Your task to perform on an android device: Open calendar and show me the first week of next month Image 0: 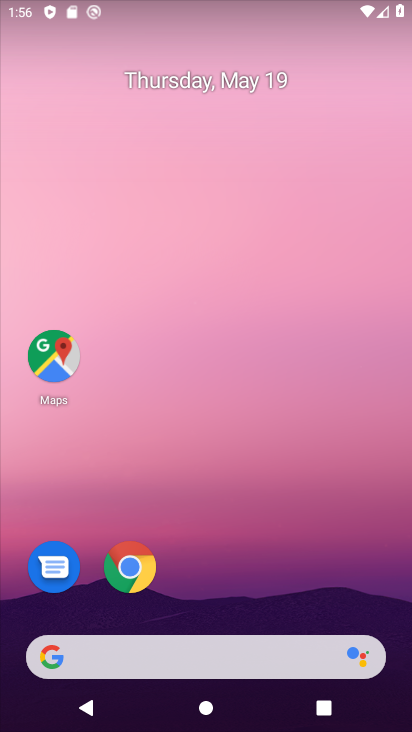
Step 0: drag from (234, 540) to (341, 152)
Your task to perform on an android device: Open calendar and show me the first week of next month Image 1: 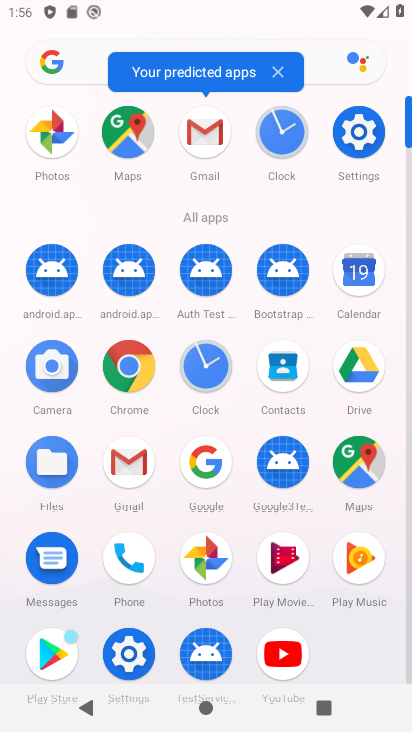
Step 1: click (368, 271)
Your task to perform on an android device: Open calendar and show me the first week of next month Image 2: 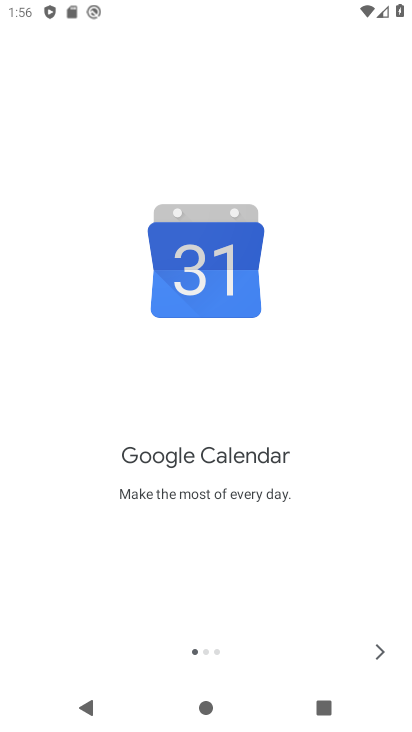
Step 2: click (385, 641)
Your task to perform on an android device: Open calendar and show me the first week of next month Image 3: 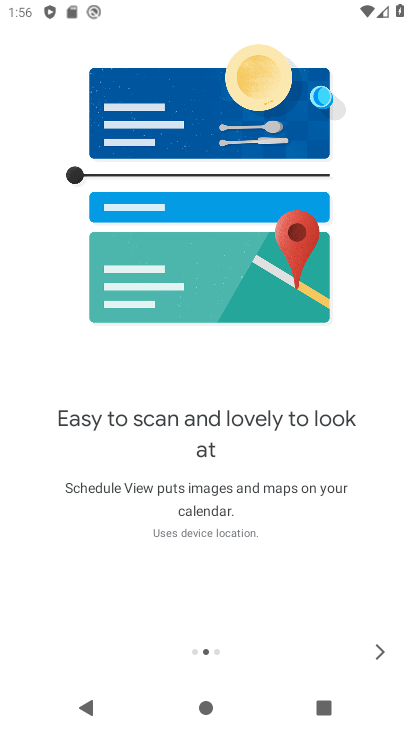
Step 3: click (385, 641)
Your task to perform on an android device: Open calendar and show me the first week of next month Image 4: 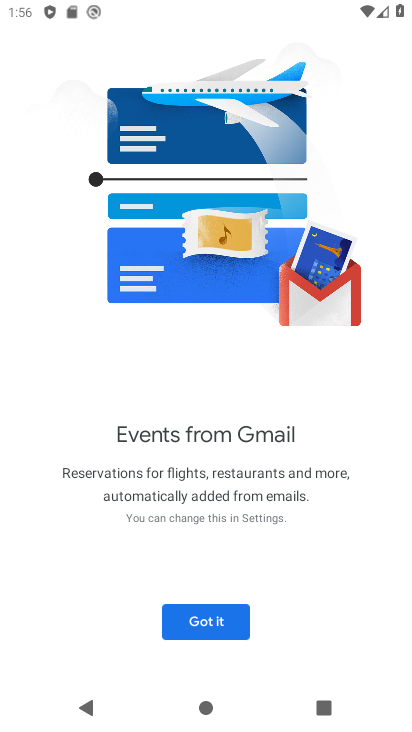
Step 4: click (236, 627)
Your task to perform on an android device: Open calendar and show me the first week of next month Image 5: 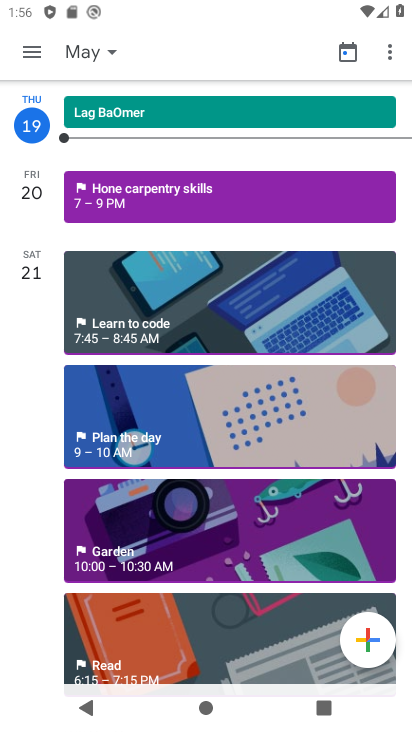
Step 5: click (109, 55)
Your task to perform on an android device: Open calendar and show me the first week of next month Image 6: 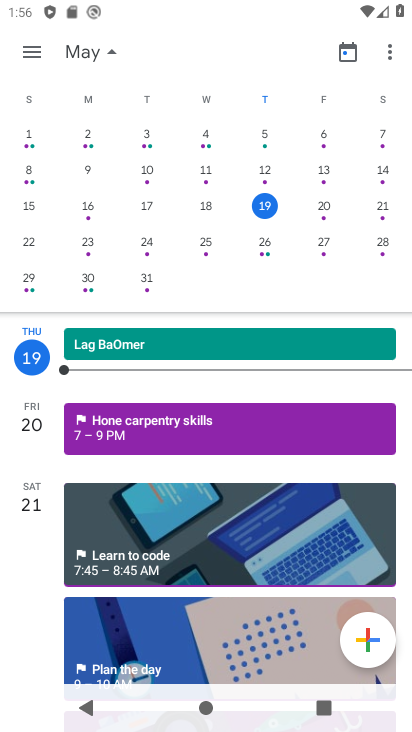
Step 6: click (109, 55)
Your task to perform on an android device: Open calendar and show me the first week of next month Image 7: 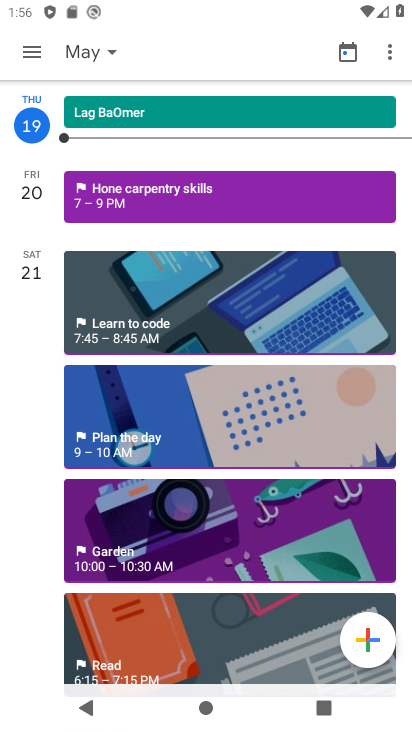
Step 7: click (109, 55)
Your task to perform on an android device: Open calendar and show me the first week of next month Image 8: 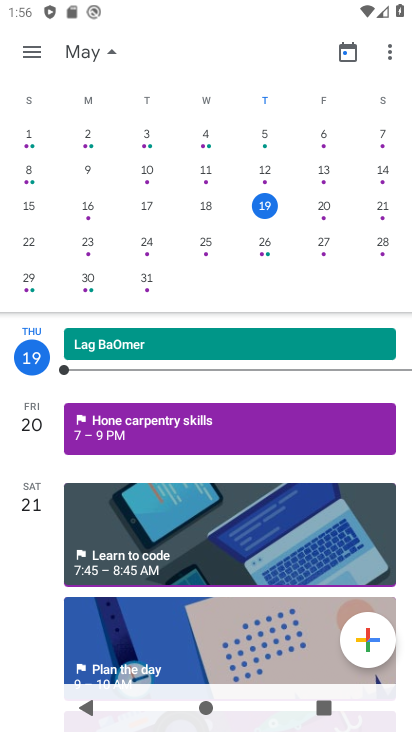
Step 8: drag from (383, 206) to (5, 272)
Your task to perform on an android device: Open calendar and show me the first week of next month Image 9: 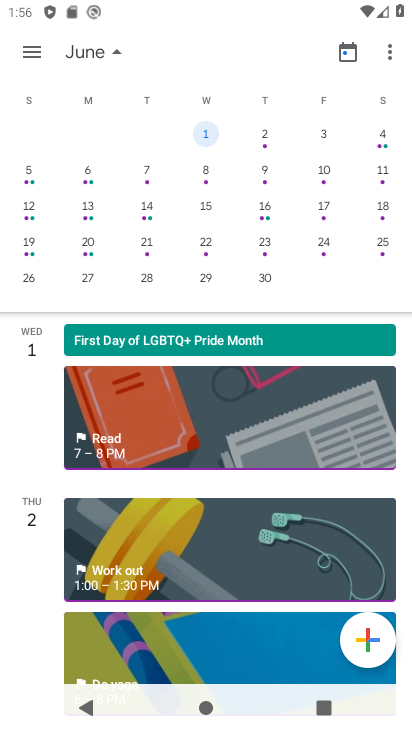
Step 9: click (211, 125)
Your task to perform on an android device: Open calendar and show me the first week of next month Image 10: 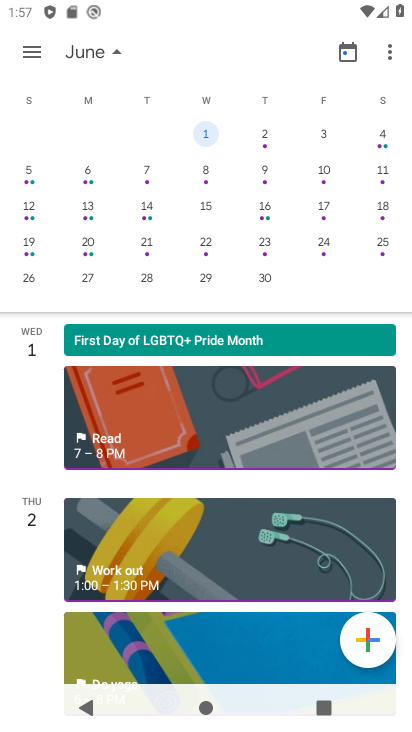
Step 10: click (205, 124)
Your task to perform on an android device: Open calendar and show me the first week of next month Image 11: 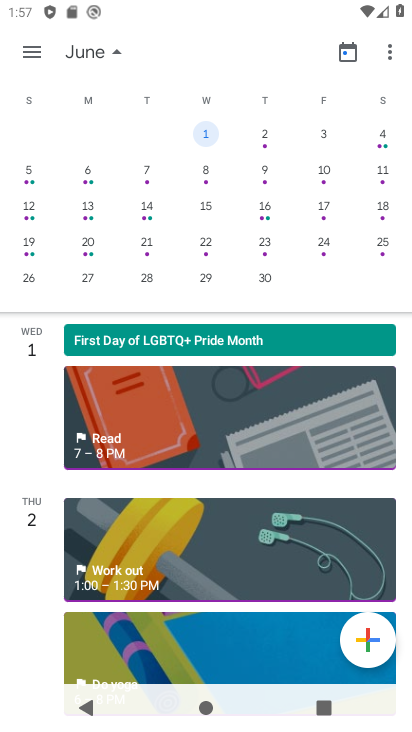
Step 11: task complete